Your task to perform on an android device: turn on priority inbox in the gmail app Image 0: 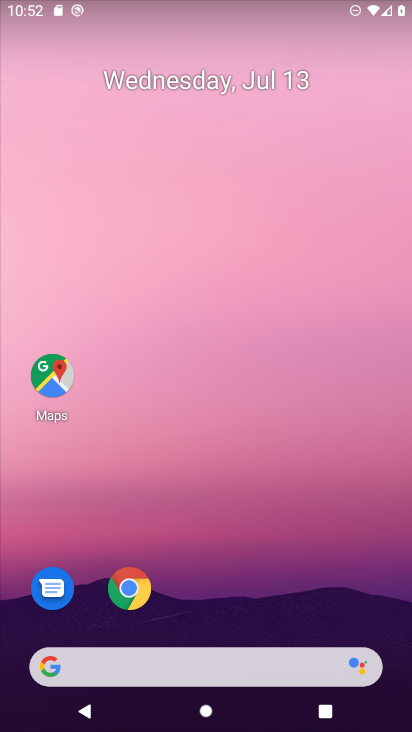
Step 0: drag from (220, 625) to (238, 44)
Your task to perform on an android device: turn on priority inbox in the gmail app Image 1: 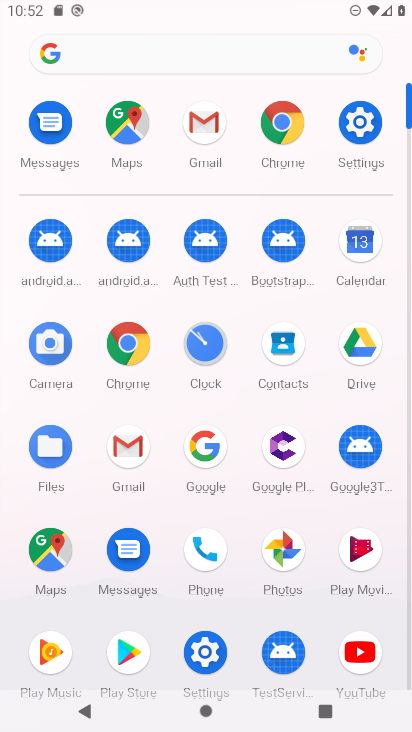
Step 1: click (129, 454)
Your task to perform on an android device: turn on priority inbox in the gmail app Image 2: 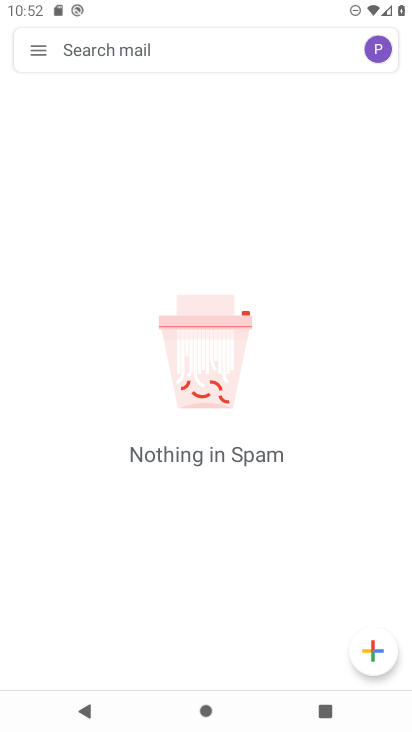
Step 2: click (33, 49)
Your task to perform on an android device: turn on priority inbox in the gmail app Image 3: 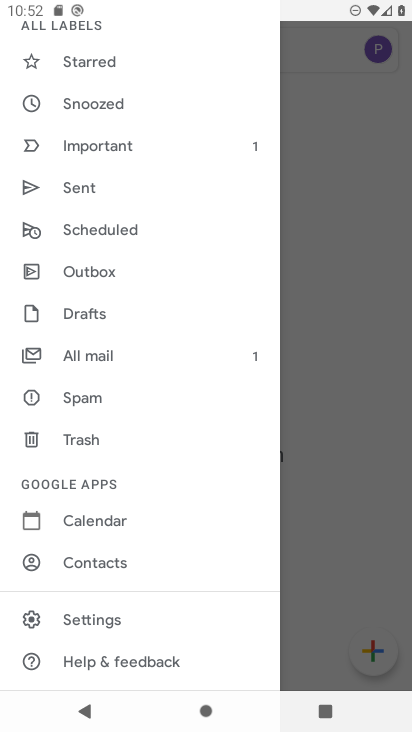
Step 3: click (109, 618)
Your task to perform on an android device: turn on priority inbox in the gmail app Image 4: 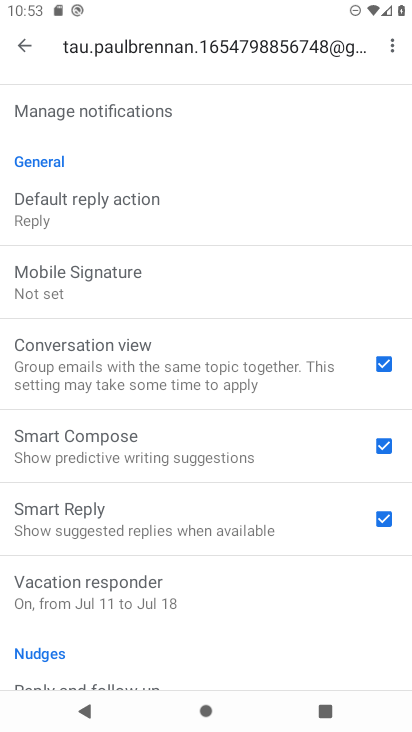
Step 4: drag from (113, 139) to (134, 554)
Your task to perform on an android device: turn on priority inbox in the gmail app Image 5: 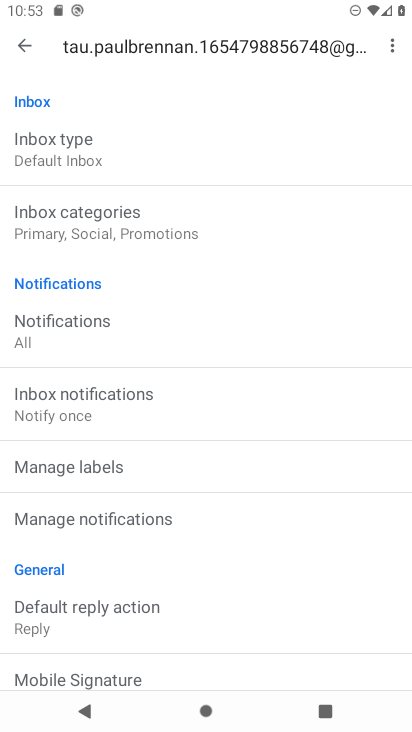
Step 5: click (81, 155)
Your task to perform on an android device: turn on priority inbox in the gmail app Image 6: 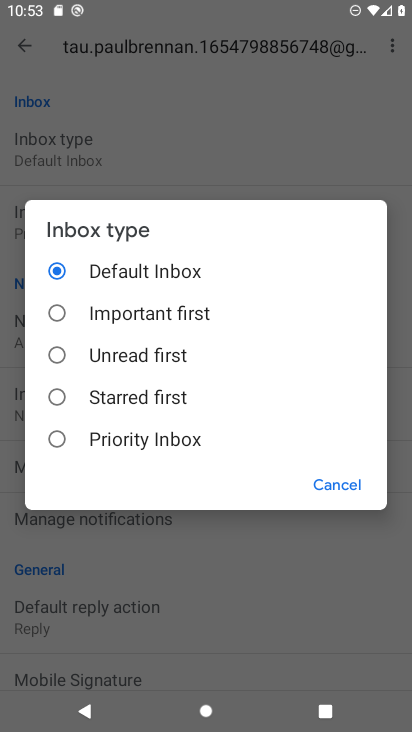
Step 6: click (120, 445)
Your task to perform on an android device: turn on priority inbox in the gmail app Image 7: 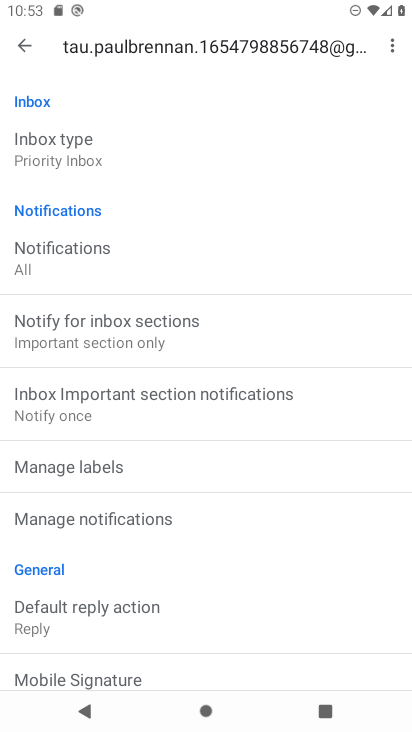
Step 7: task complete